Your task to perform on an android device: What's the weather going to be tomorrow? Image 0: 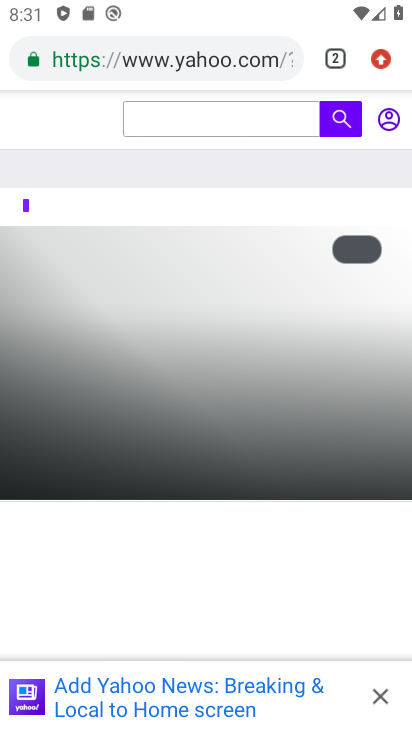
Step 0: press home button
Your task to perform on an android device: What's the weather going to be tomorrow? Image 1: 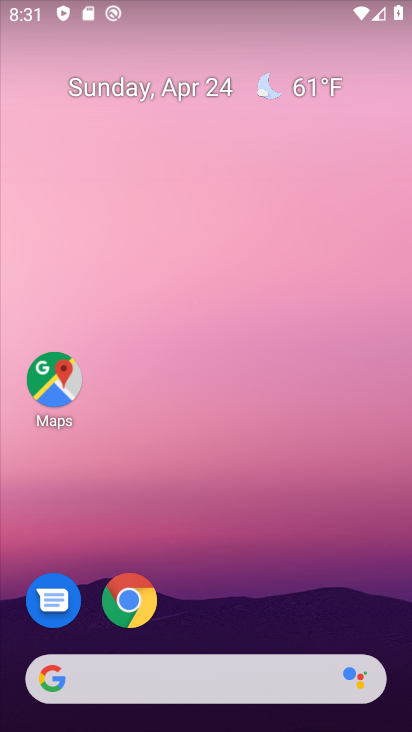
Step 1: click (261, 79)
Your task to perform on an android device: What's the weather going to be tomorrow? Image 2: 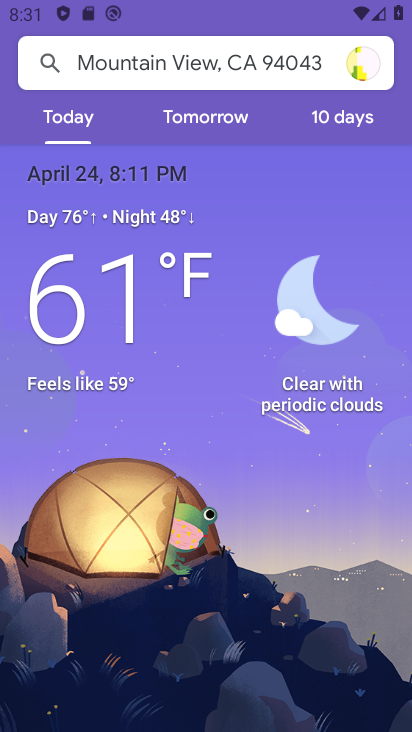
Step 2: click (209, 123)
Your task to perform on an android device: What's the weather going to be tomorrow? Image 3: 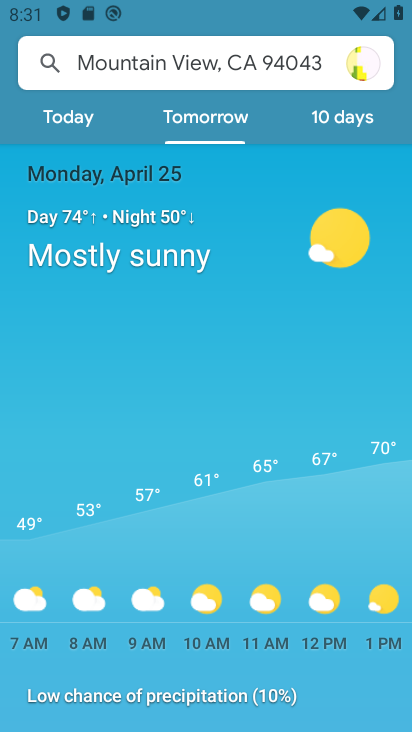
Step 3: task complete